Your task to perform on an android device: Do I have any events this weekend? Image 0: 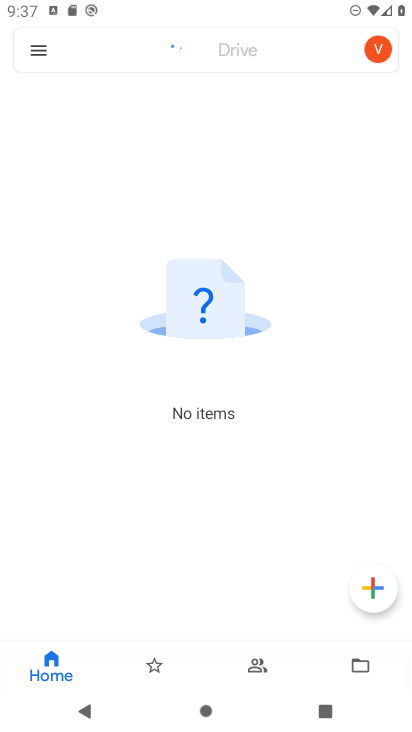
Step 0: press home button
Your task to perform on an android device: Do I have any events this weekend? Image 1: 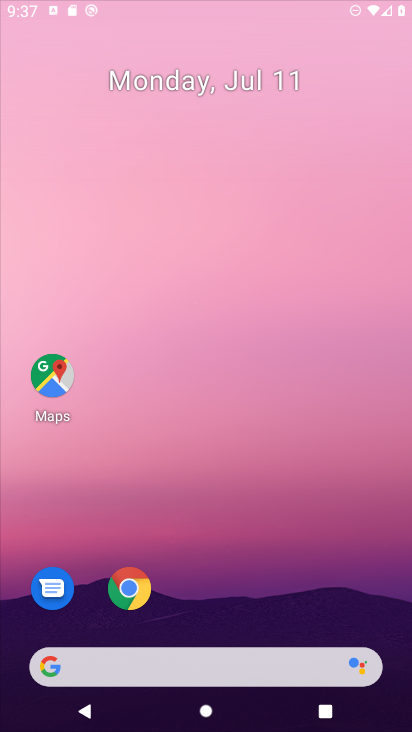
Step 1: drag from (391, 691) to (229, 169)
Your task to perform on an android device: Do I have any events this weekend? Image 2: 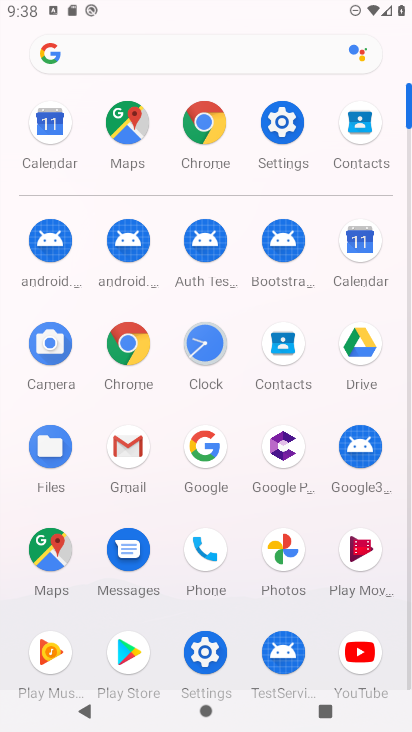
Step 2: click (361, 262)
Your task to perform on an android device: Do I have any events this weekend? Image 3: 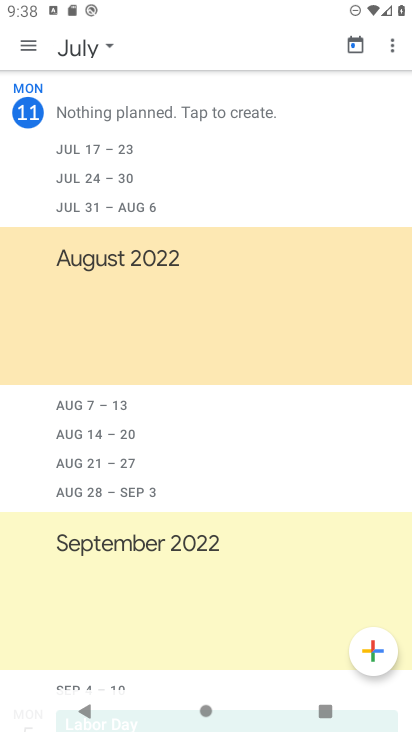
Step 3: click (93, 47)
Your task to perform on an android device: Do I have any events this weekend? Image 4: 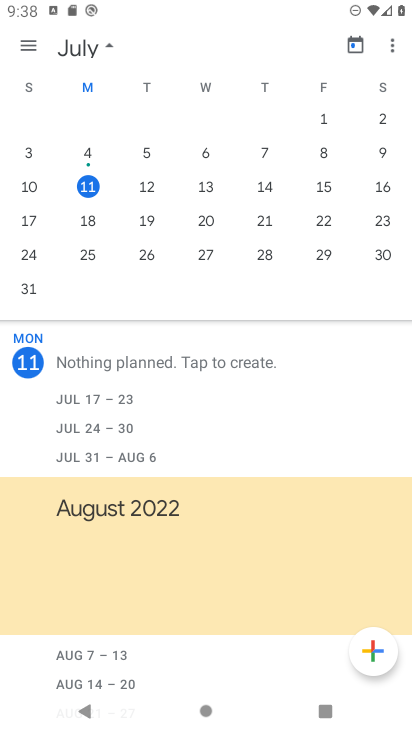
Step 4: click (21, 229)
Your task to perform on an android device: Do I have any events this weekend? Image 5: 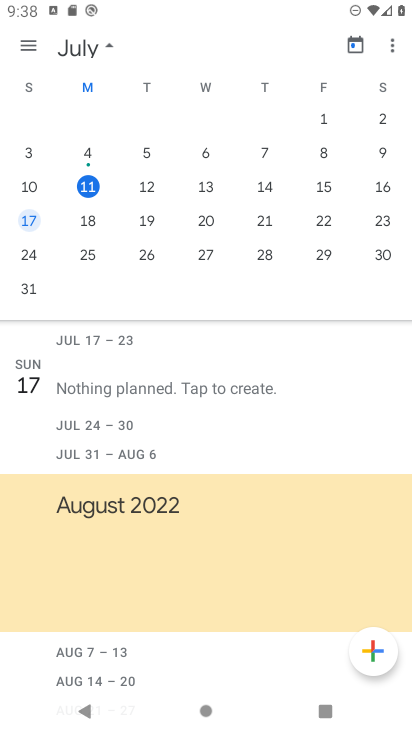
Step 5: click (189, 386)
Your task to perform on an android device: Do I have any events this weekend? Image 6: 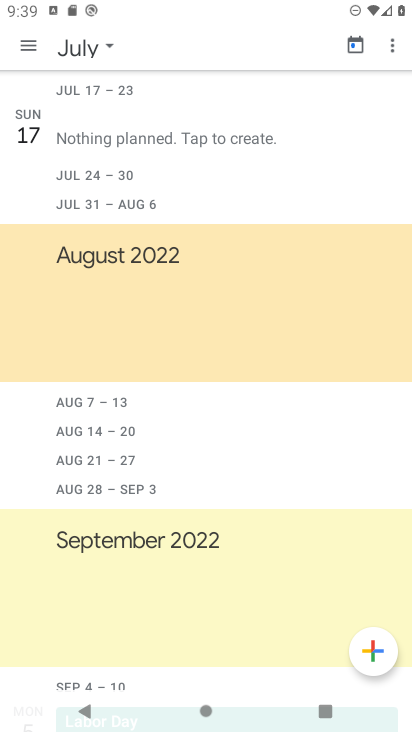
Step 6: task complete